Your task to perform on an android device: turn off location Image 0: 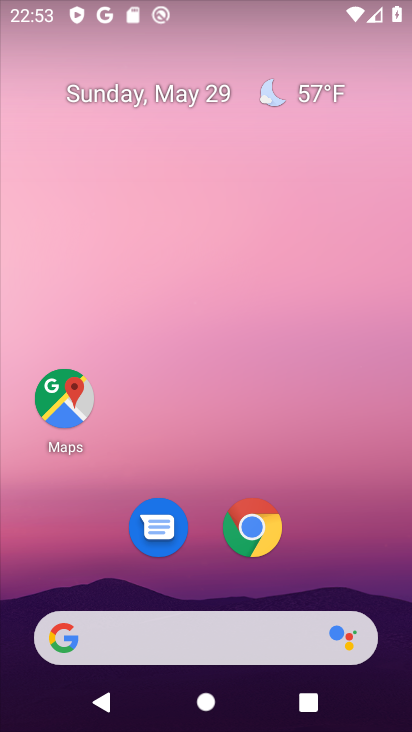
Step 0: drag from (328, 575) to (230, 170)
Your task to perform on an android device: turn off location Image 1: 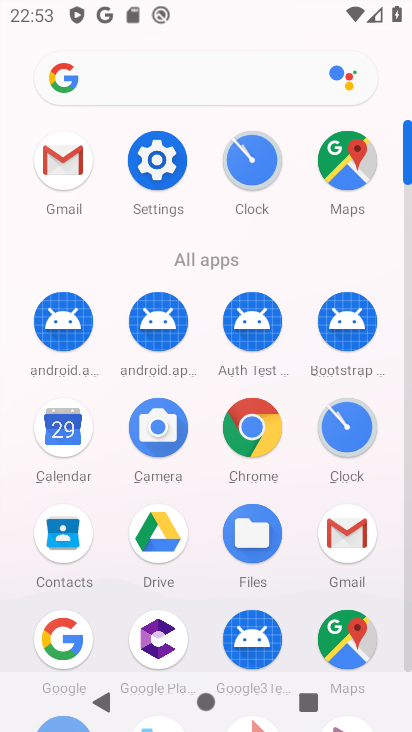
Step 1: click (158, 161)
Your task to perform on an android device: turn off location Image 2: 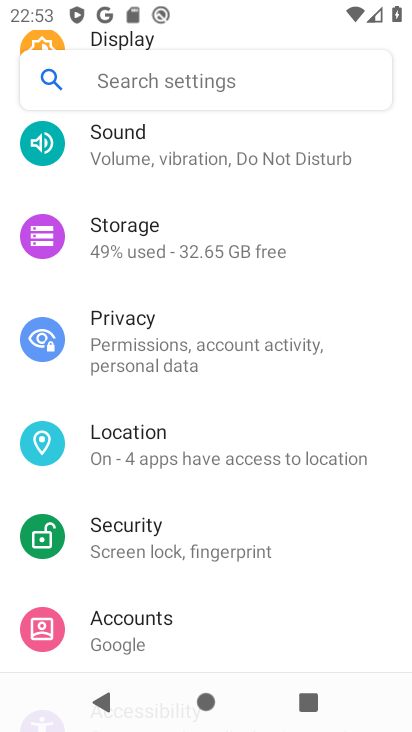
Step 2: click (192, 451)
Your task to perform on an android device: turn off location Image 3: 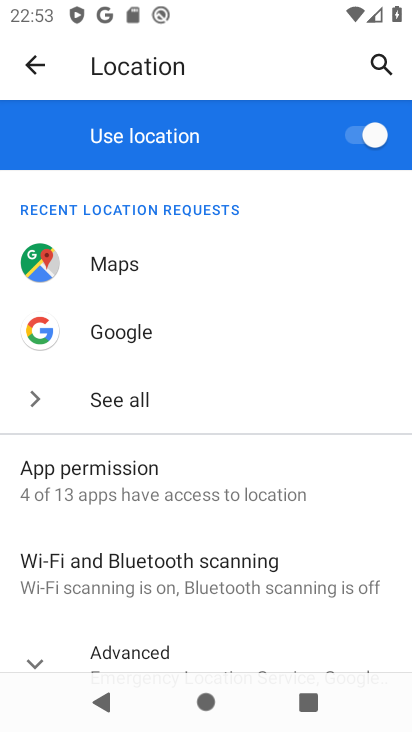
Step 3: click (360, 141)
Your task to perform on an android device: turn off location Image 4: 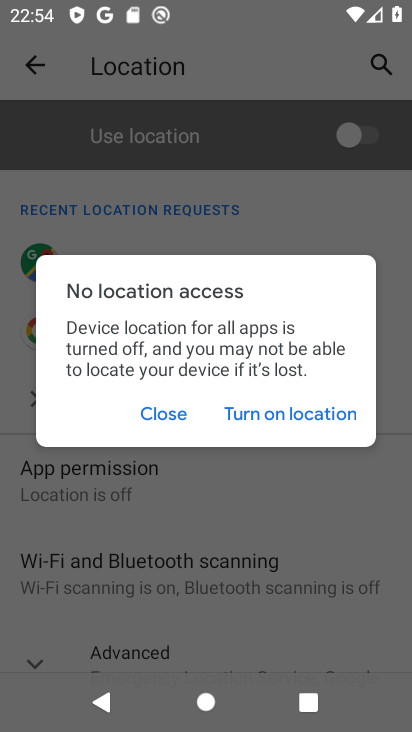
Step 4: task complete